Your task to perform on an android device: Do I have any events tomorrow? Image 0: 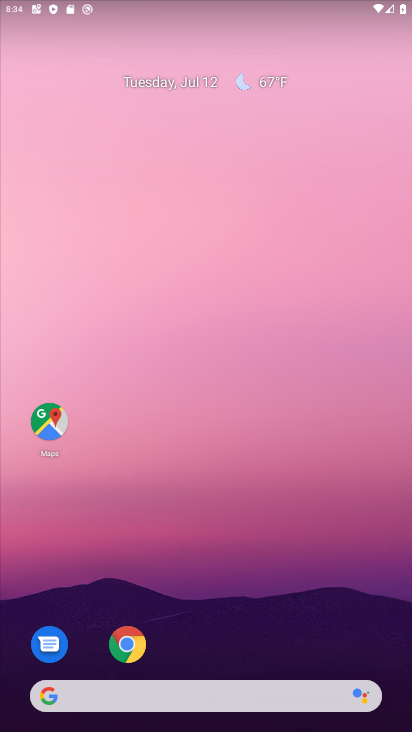
Step 0: drag from (180, 636) to (177, 271)
Your task to perform on an android device: Do I have any events tomorrow? Image 1: 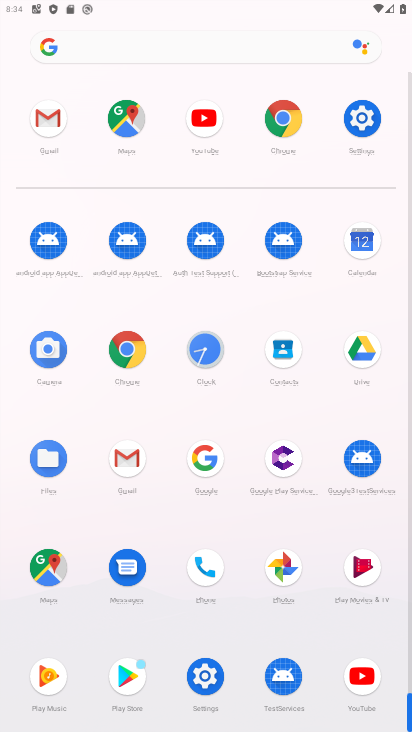
Step 1: click (360, 235)
Your task to perform on an android device: Do I have any events tomorrow? Image 2: 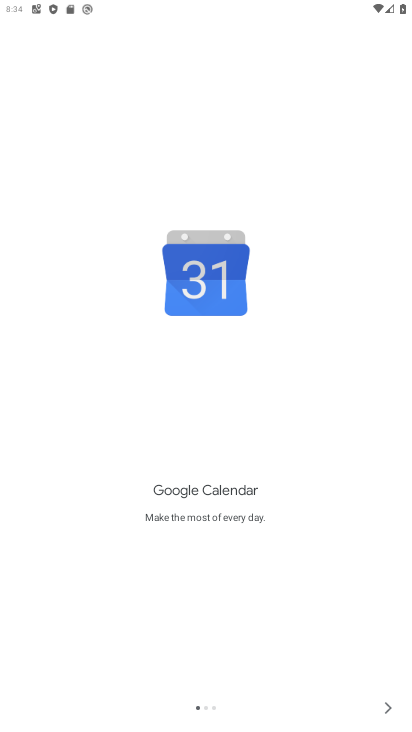
Step 2: click (387, 707)
Your task to perform on an android device: Do I have any events tomorrow? Image 3: 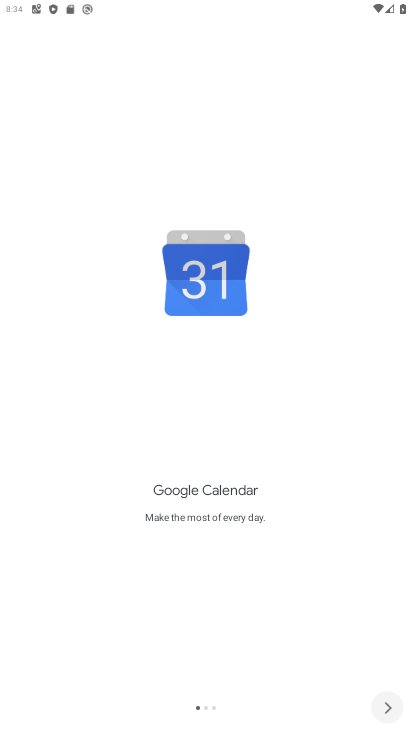
Step 3: click (387, 707)
Your task to perform on an android device: Do I have any events tomorrow? Image 4: 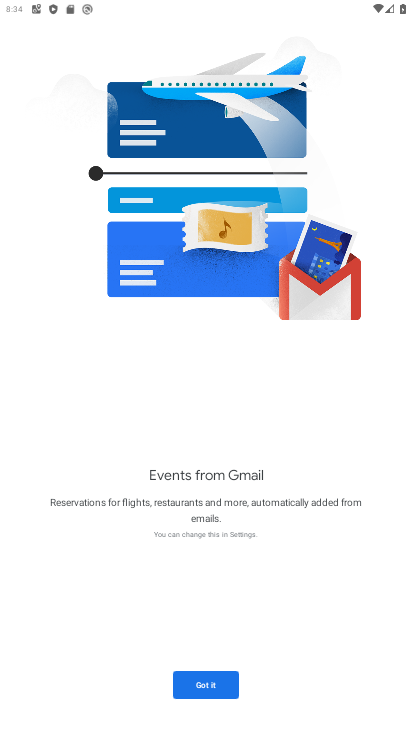
Step 4: click (387, 707)
Your task to perform on an android device: Do I have any events tomorrow? Image 5: 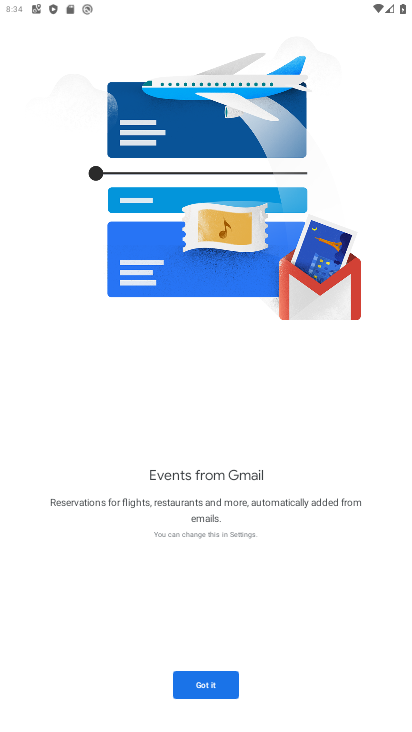
Step 5: click (202, 683)
Your task to perform on an android device: Do I have any events tomorrow? Image 6: 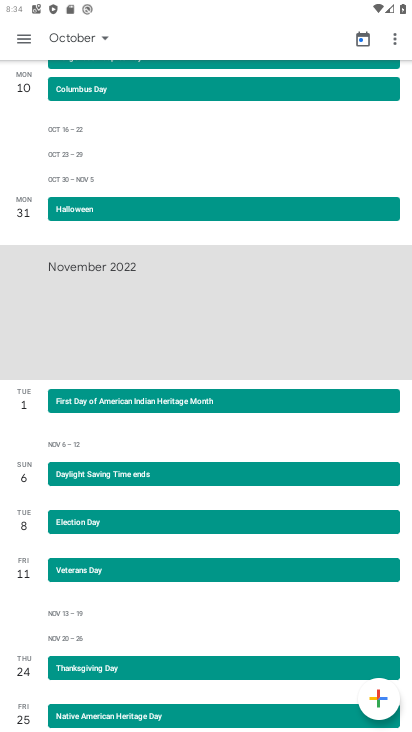
Step 6: click (83, 30)
Your task to perform on an android device: Do I have any events tomorrow? Image 7: 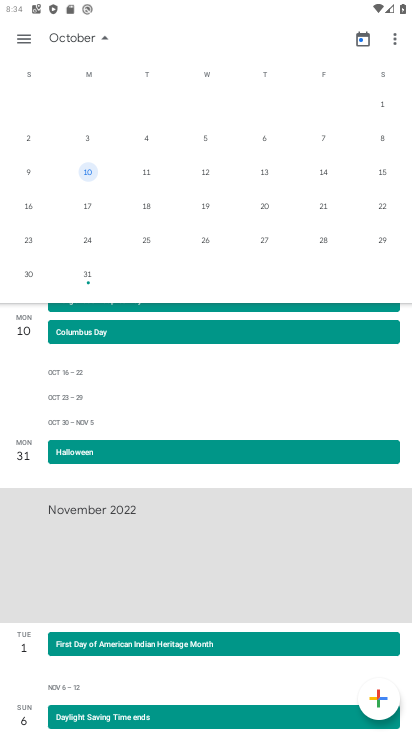
Step 7: drag from (50, 188) to (412, 232)
Your task to perform on an android device: Do I have any events tomorrow? Image 8: 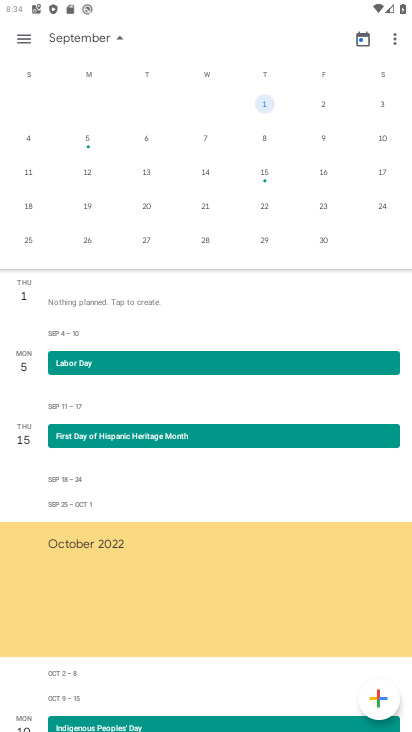
Step 8: drag from (50, 181) to (411, 220)
Your task to perform on an android device: Do I have any events tomorrow? Image 9: 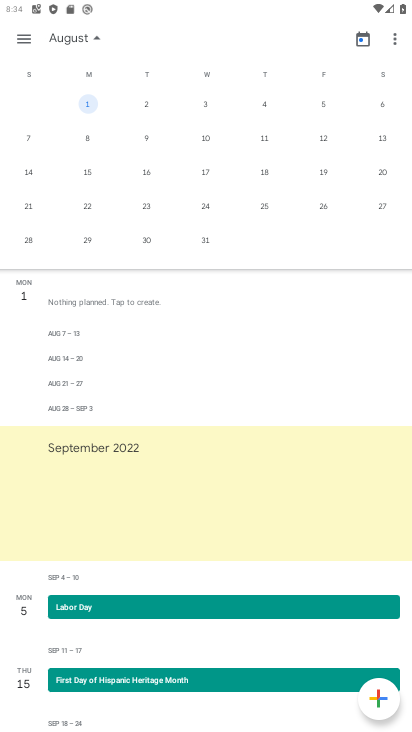
Step 9: drag from (80, 205) to (409, 217)
Your task to perform on an android device: Do I have any events tomorrow? Image 10: 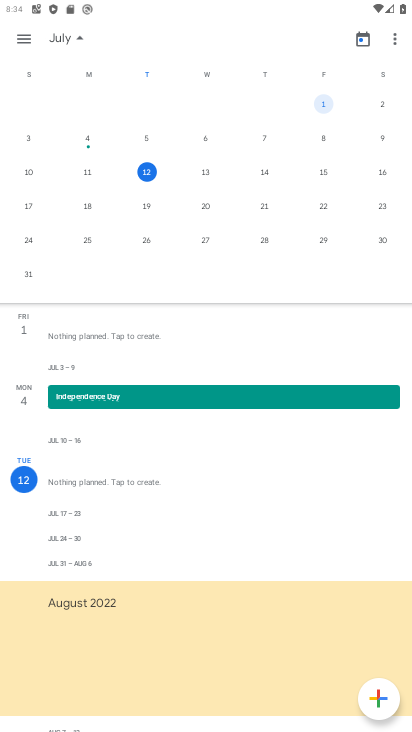
Step 10: click (204, 179)
Your task to perform on an android device: Do I have any events tomorrow? Image 11: 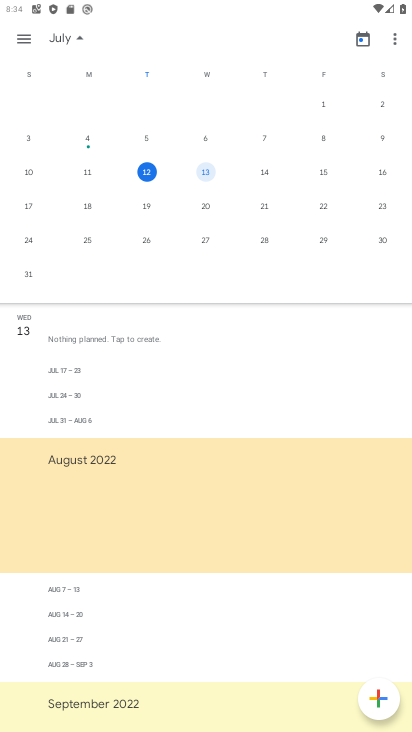
Step 11: task complete